Your task to perform on an android device: turn off picture-in-picture Image 0: 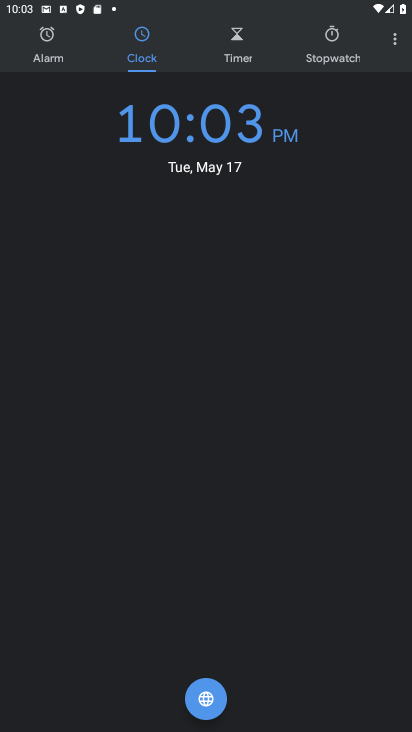
Step 0: press home button
Your task to perform on an android device: turn off picture-in-picture Image 1: 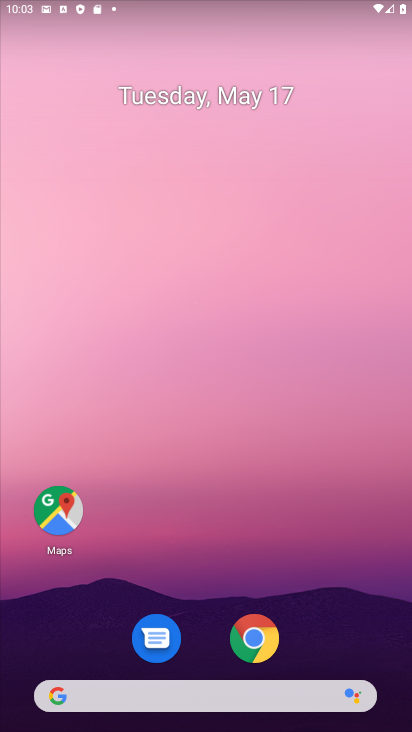
Step 1: click (250, 643)
Your task to perform on an android device: turn off picture-in-picture Image 2: 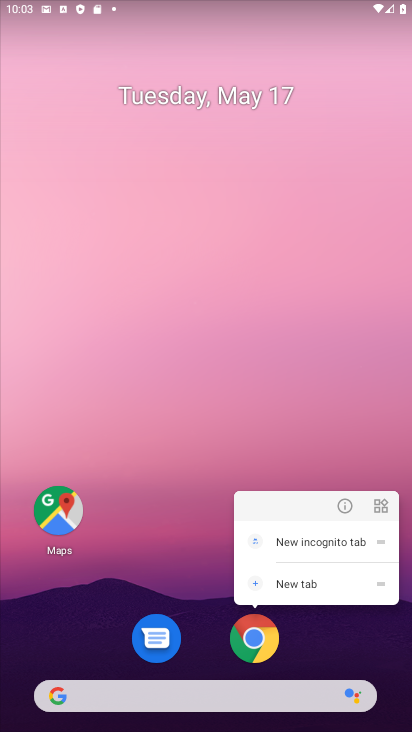
Step 2: click (340, 514)
Your task to perform on an android device: turn off picture-in-picture Image 3: 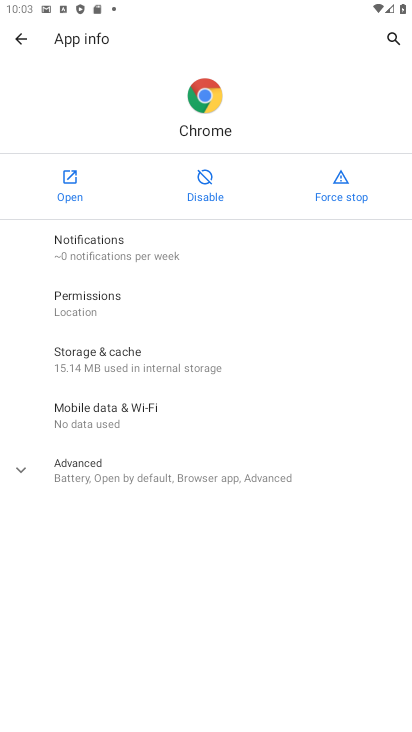
Step 3: click (181, 472)
Your task to perform on an android device: turn off picture-in-picture Image 4: 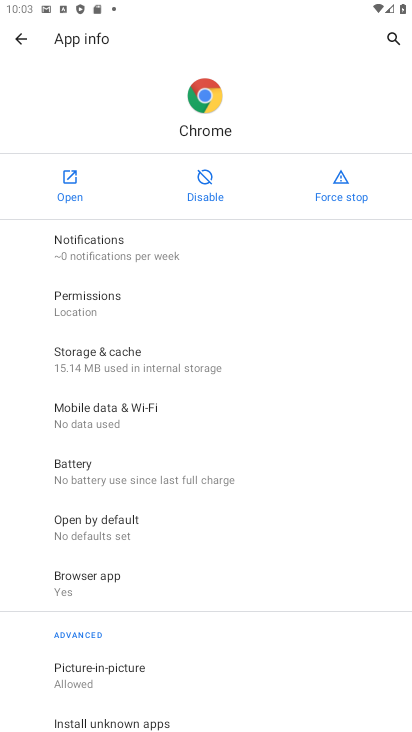
Step 4: click (97, 689)
Your task to perform on an android device: turn off picture-in-picture Image 5: 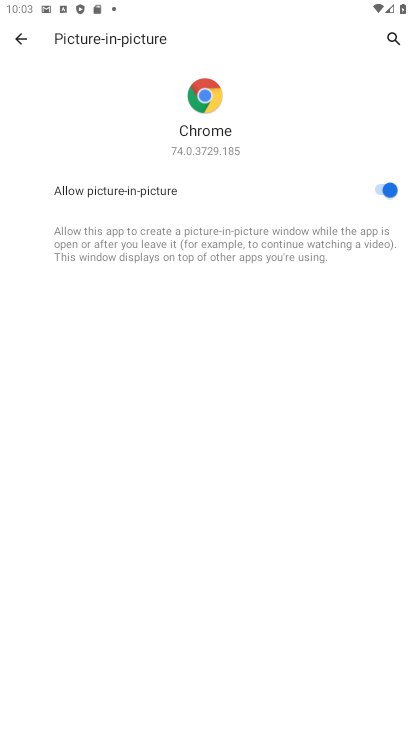
Step 5: click (371, 189)
Your task to perform on an android device: turn off picture-in-picture Image 6: 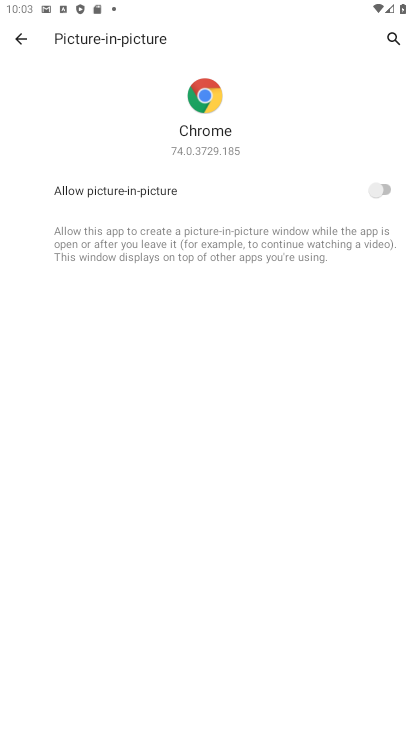
Step 6: task complete